Your task to perform on an android device: Open the calendar and show me this week's events? Image 0: 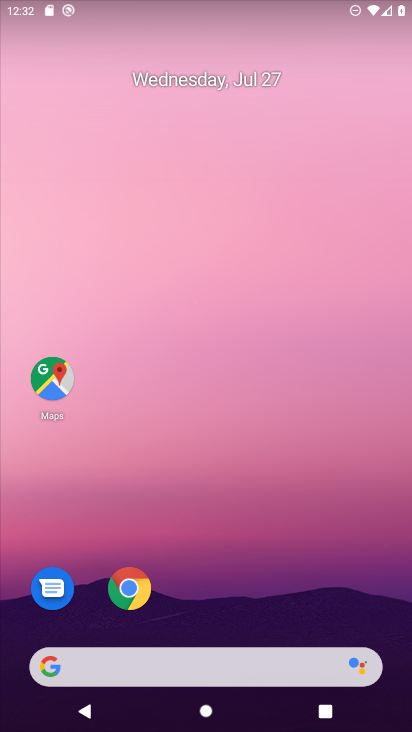
Step 0: drag from (48, 660) to (114, 237)
Your task to perform on an android device: Open the calendar and show me this week's events? Image 1: 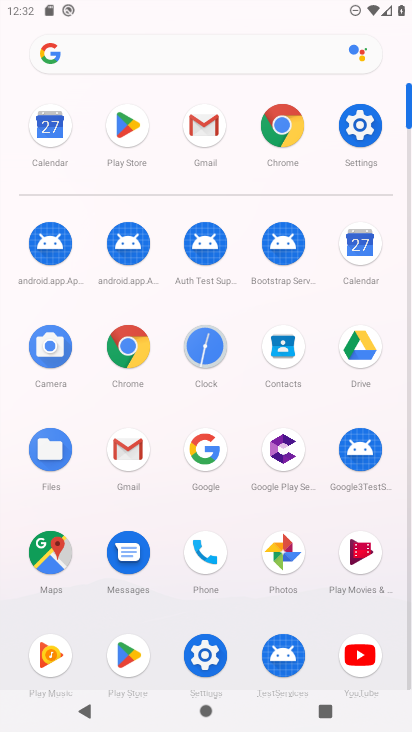
Step 1: click (377, 246)
Your task to perform on an android device: Open the calendar and show me this week's events? Image 2: 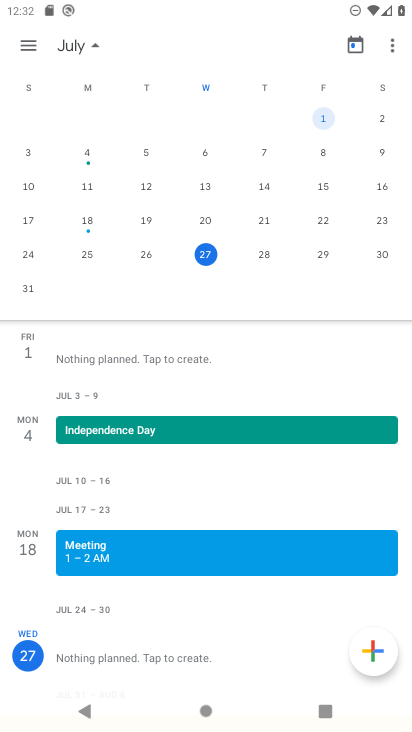
Step 2: task complete